Your task to perform on an android device: change notification settings in the gmail app Image 0: 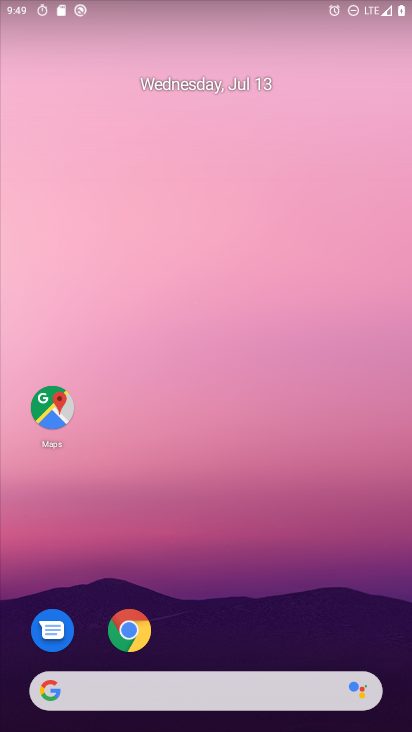
Step 0: drag from (395, 666) to (245, 101)
Your task to perform on an android device: change notification settings in the gmail app Image 1: 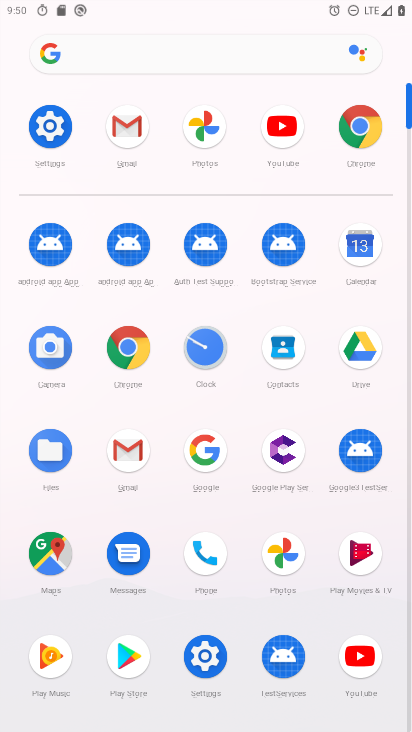
Step 1: click (124, 454)
Your task to perform on an android device: change notification settings in the gmail app Image 2: 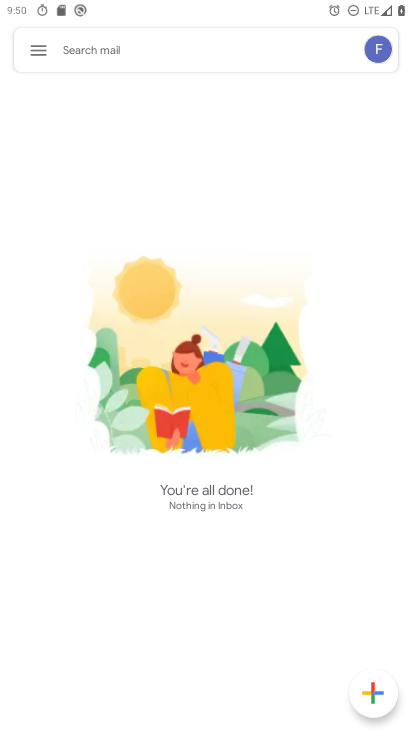
Step 2: click (38, 48)
Your task to perform on an android device: change notification settings in the gmail app Image 3: 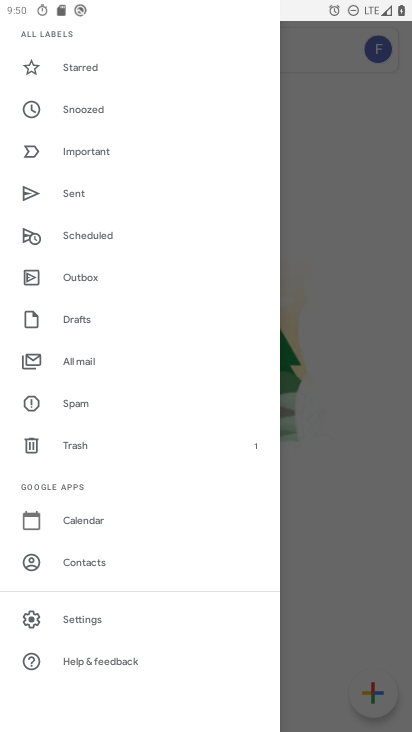
Step 3: click (97, 616)
Your task to perform on an android device: change notification settings in the gmail app Image 4: 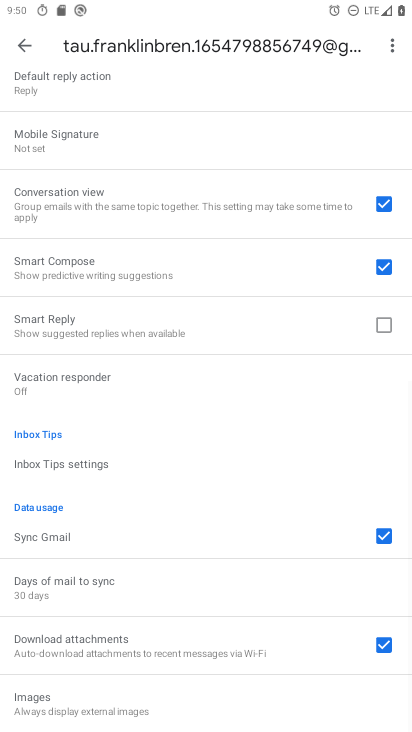
Step 4: drag from (116, 134) to (143, 729)
Your task to perform on an android device: change notification settings in the gmail app Image 5: 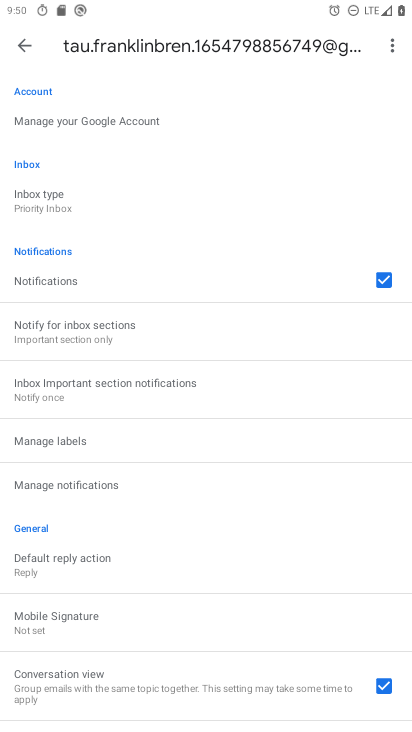
Step 5: click (128, 289)
Your task to perform on an android device: change notification settings in the gmail app Image 6: 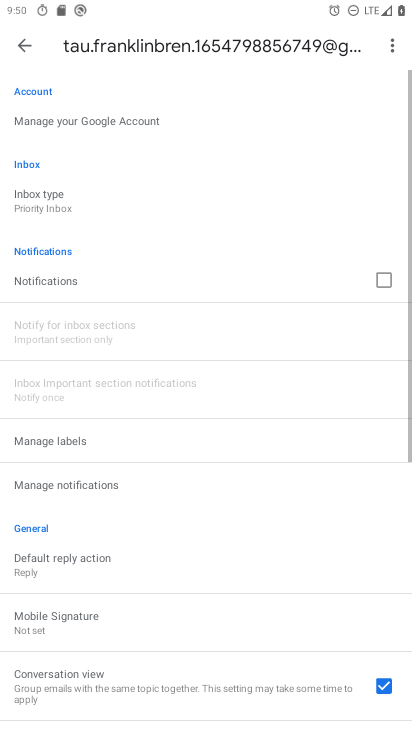
Step 6: task complete